Your task to perform on an android device: Go to settings Image 0: 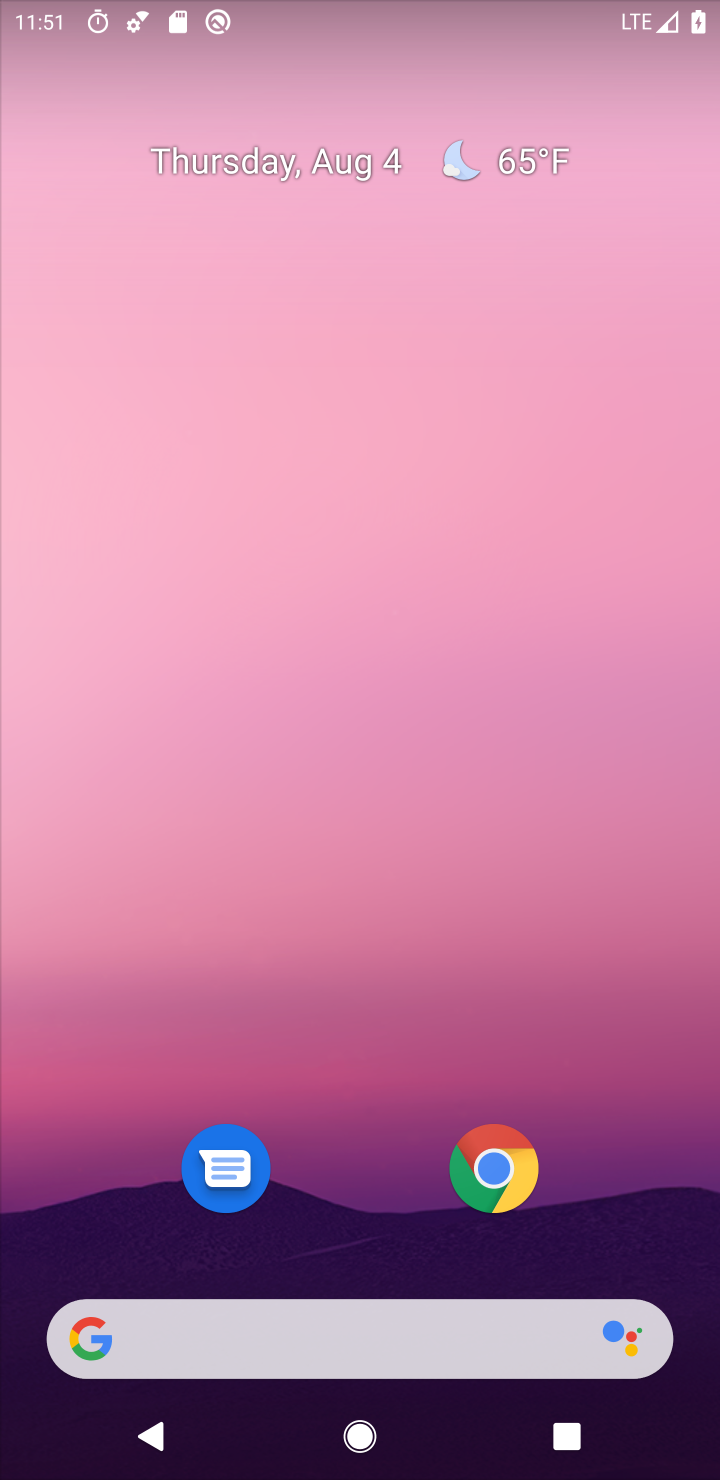
Step 0: drag from (344, 1264) to (439, 0)
Your task to perform on an android device: Go to settings Image 1: 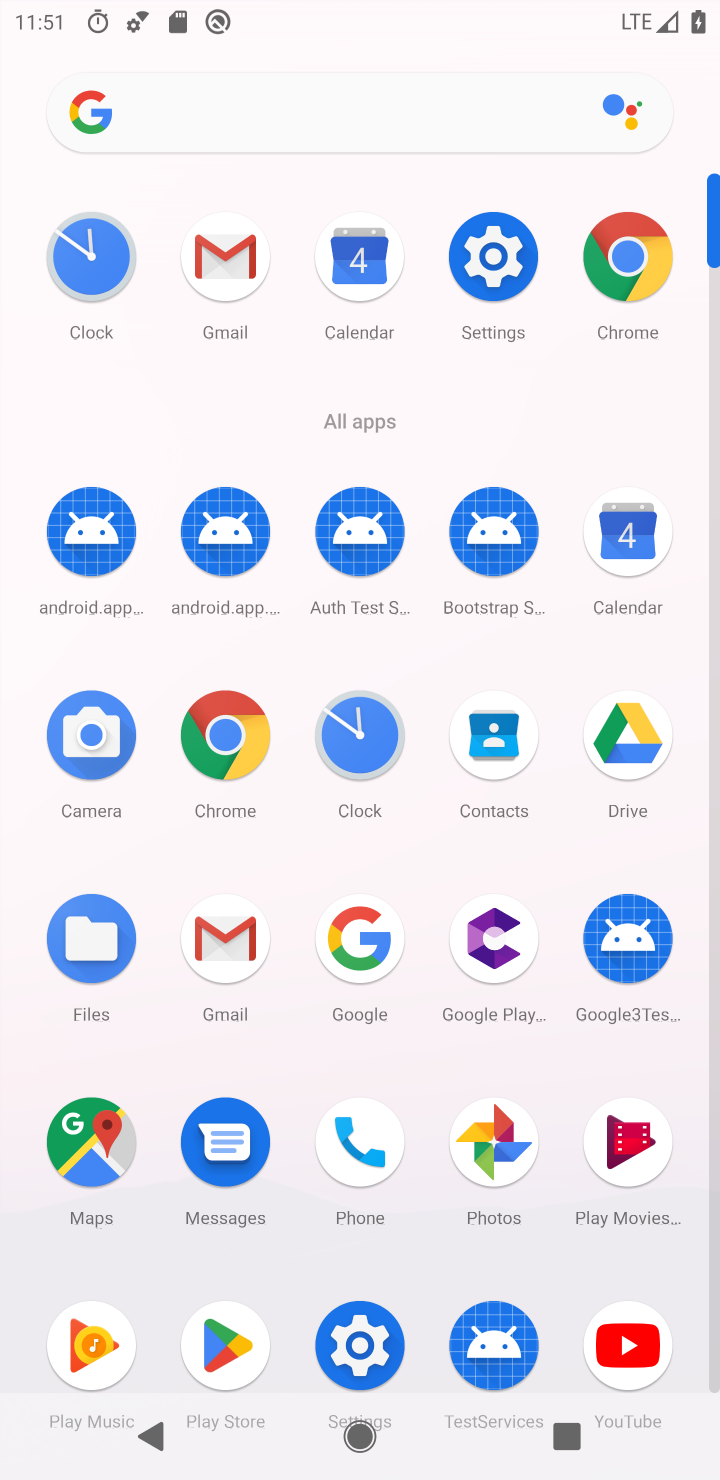
Step 1: click (365, 1336)
Your task to perform on an android device: Go to settings Image 2: 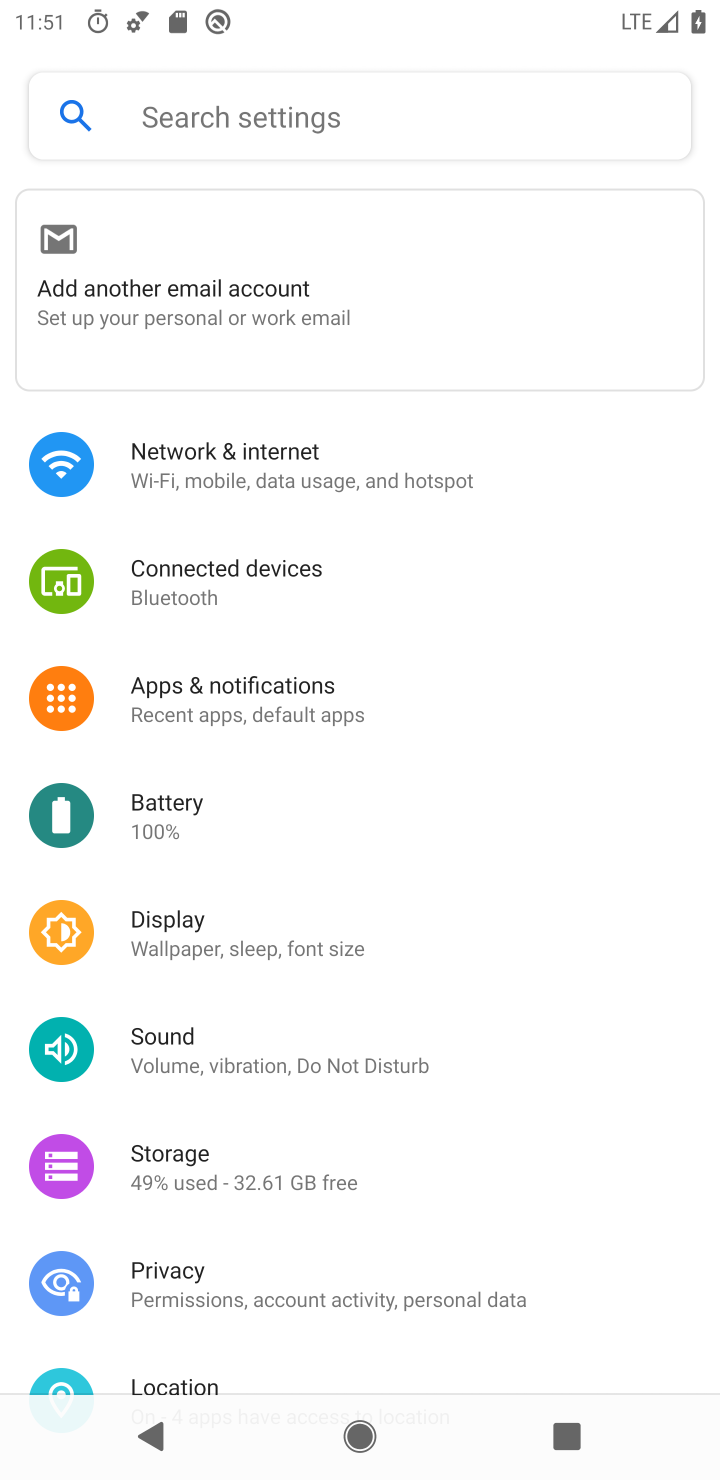
Step 2: task complete